Your task to perform on an android device: change alarm snooze length Image 0: 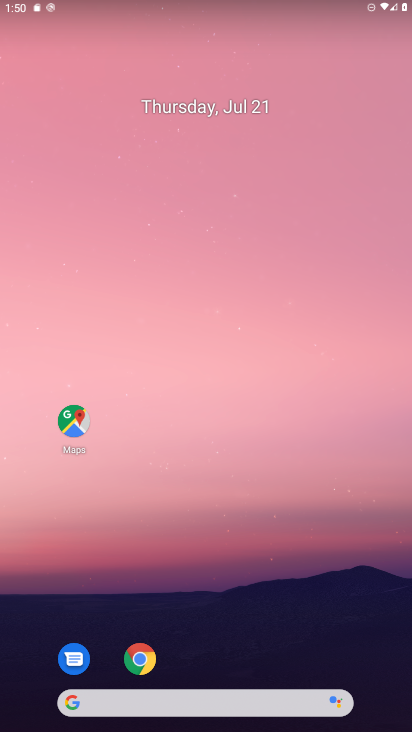
Step 0: task impossible